Your task to perform on an android device: allow notifications from all sites in the chrome app Image 0: 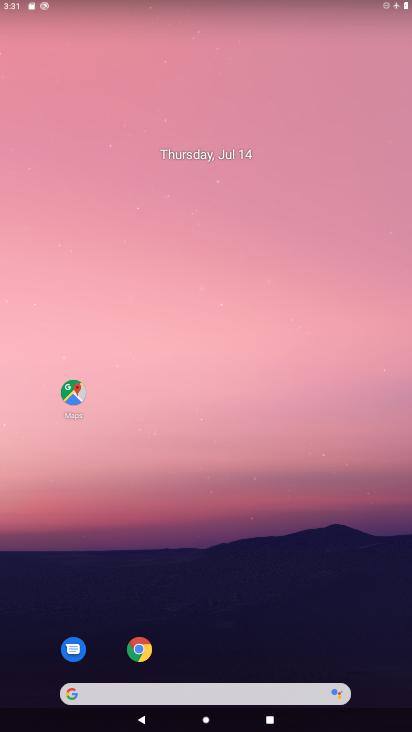
Step 0: drag from (102, 608) to (109, 216)
Your task to perform on an android device: allow notifications from all sites in the chrome app Image 1: 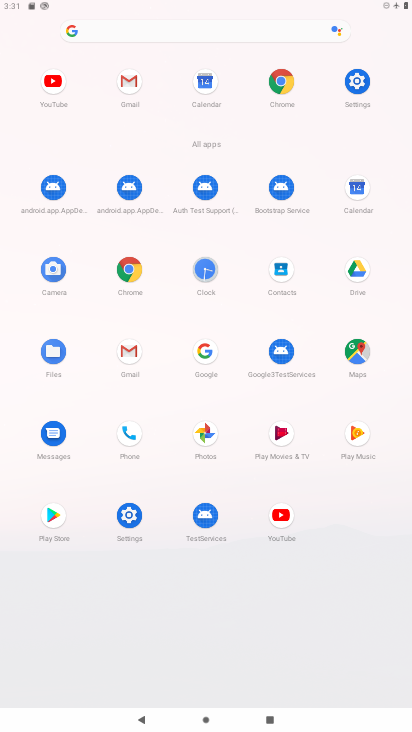
Step 1: click (277, 69)
Your task to perform on an android device: allow notifications from all sites in the chrome app Image 2: 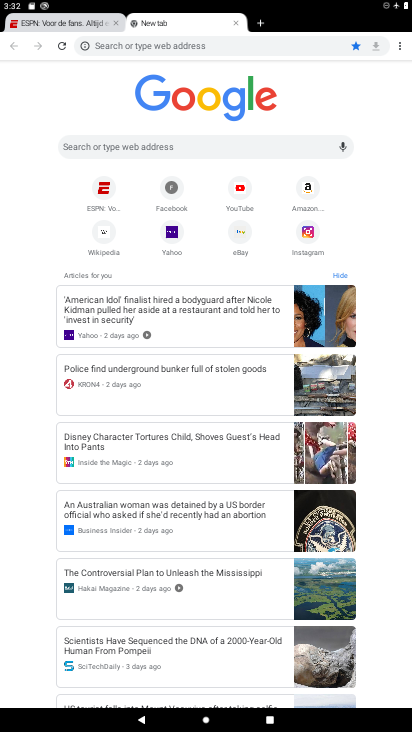
Step 2: click (411, 49)
Your task to perform on an android device: allow notifications from all sites in the chrome app Image 3: 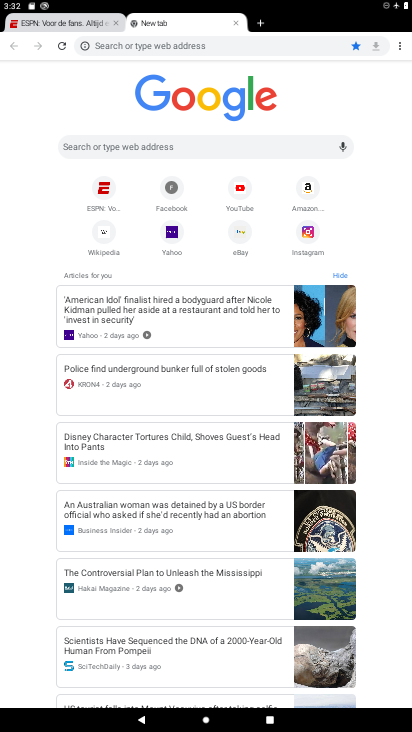
Step 3: click (395, 51)
Your task to perform on an android device: allow notifications from all sites in the chrome app Image 4: 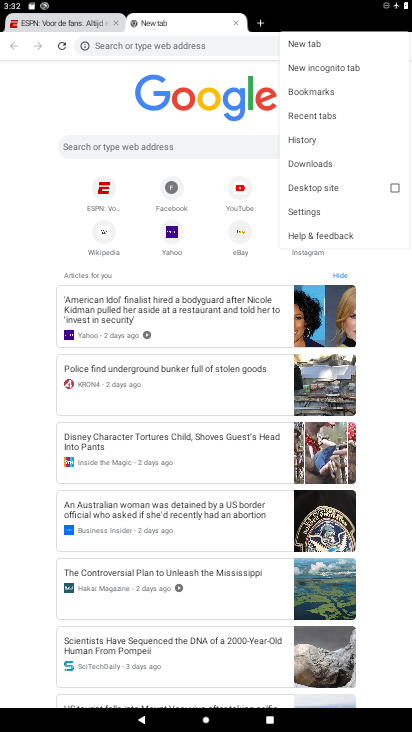
Step 4: click (285, 211)
Your task to perform on an android device: allow notifications from all sites in the chrome app Image 5: 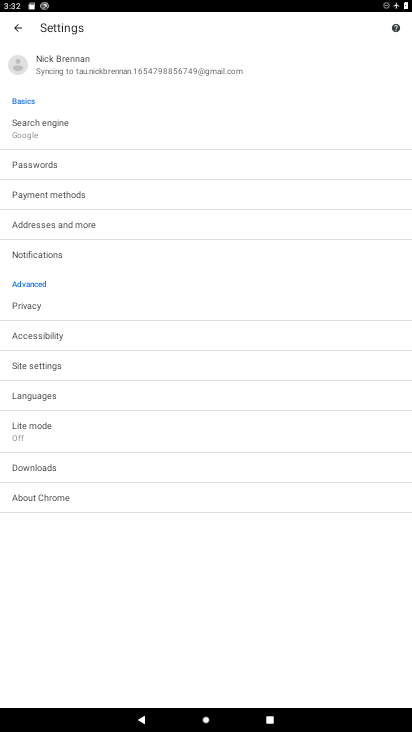
Step 5: click (68, 366)
Your task to perform on an android device: allow notifications from all sites in the chrome app Image 6: 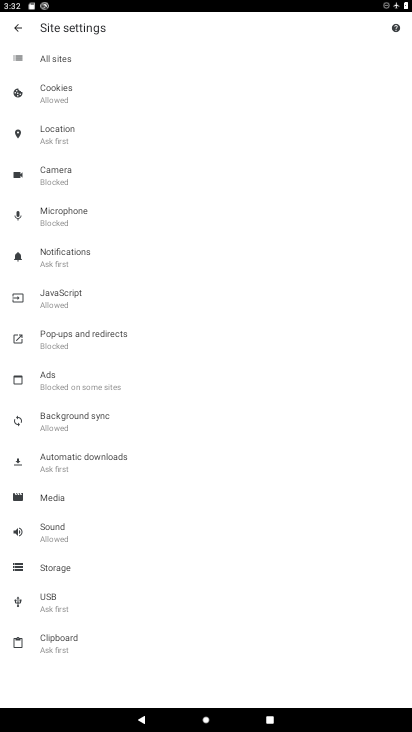
Step 6: click (100, 94)
Your task to perform on an android device: allow notifications from all sites in the chrome app Image 7: 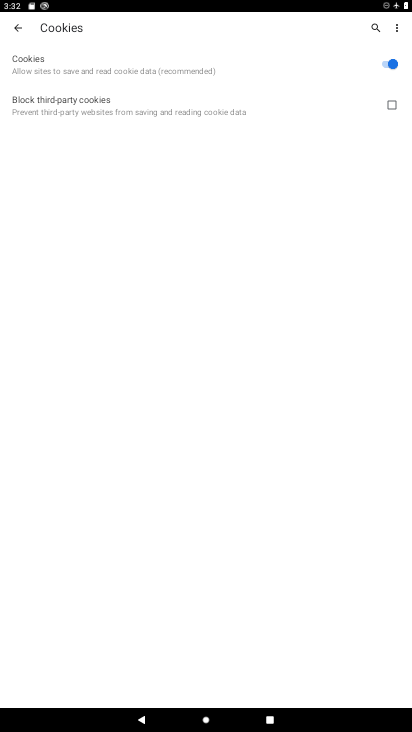
Step 7: click (15, 24)
Your task to perform on an android device: allow notifications from all sites in the chrome app Image 8: 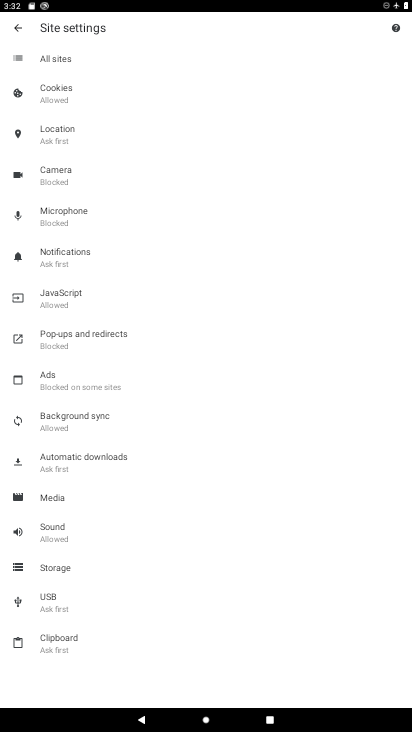
Step 8: click (57, 138)
Your task to perform on an android device: allow notifications from all sites in the chrome app Image 9: 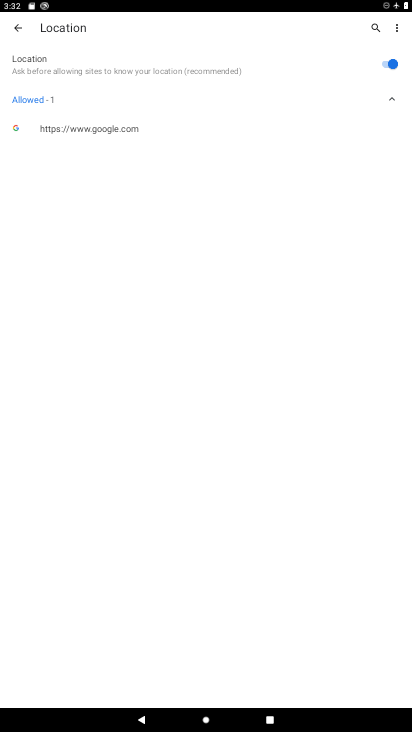
Step 9: click (18, 28)
Your task to perform on an android device: allow notifications from all sites in the chrome app Image 10: 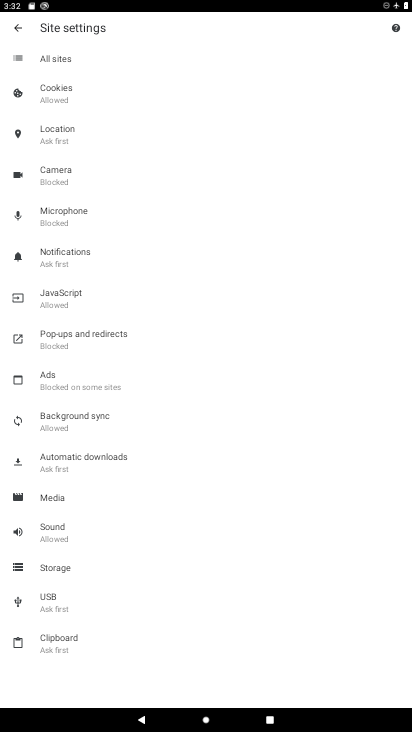
Step 10: click (57, 275)
Your task to perform on an android device: allow notifications from all sites in the chrome app Image 11: 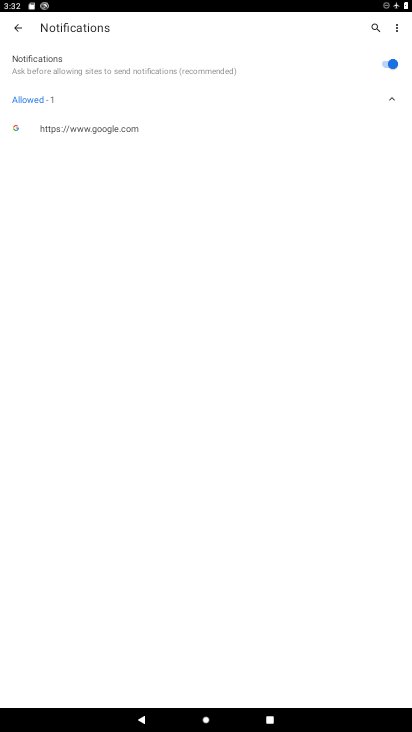
Step 11: click (13, 19)
Your task to perform on an android device: allow notifications from all sites in the chrome app Image 12: 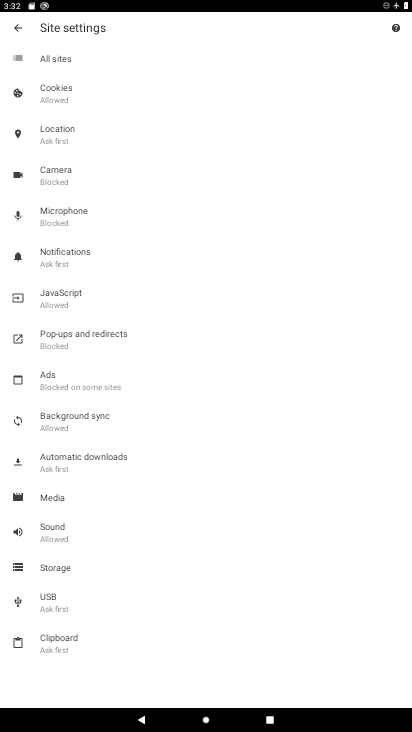
Step 12: click (95, 406)
Your task to perform on an android device: allow notifications from all sites in the chrome app Image 13: 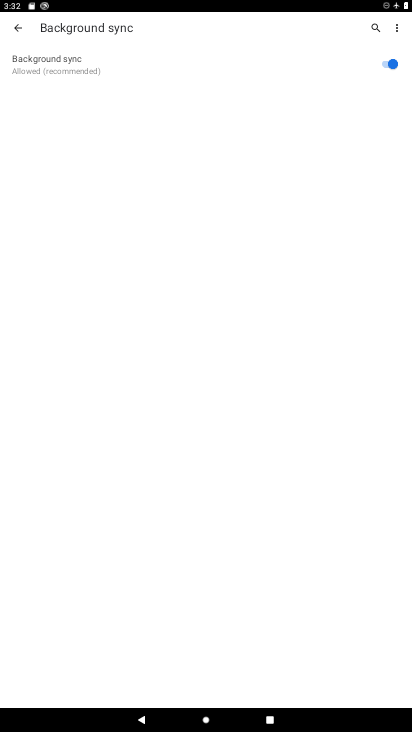
Step 13: task complete